Your task to perform on an android device: check storage Image 0: 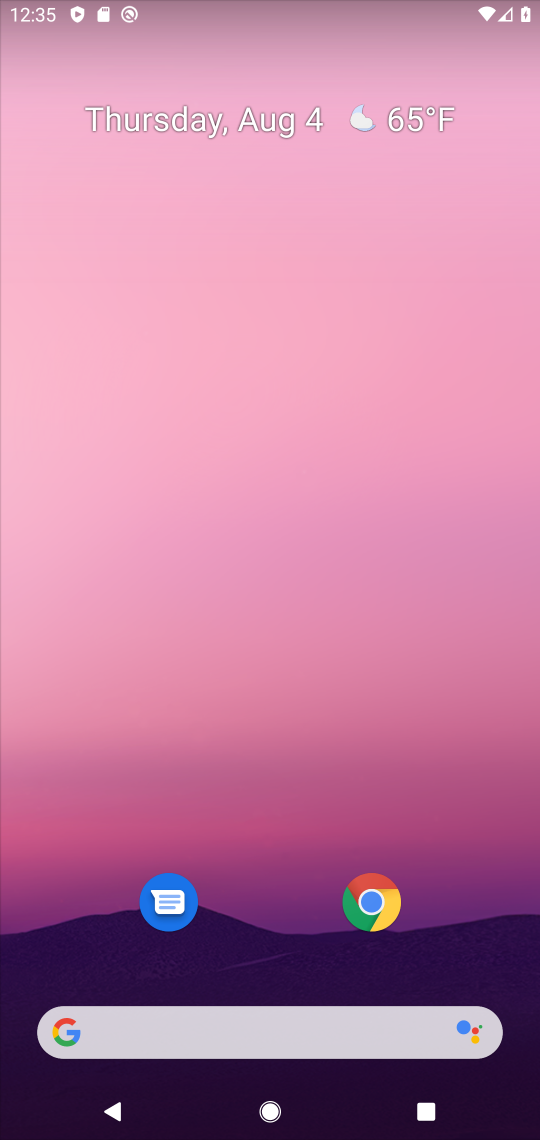
Step 0: drag from (501, 957) to (420, 44)
Your task to perform on an android device: check storage Image 1: 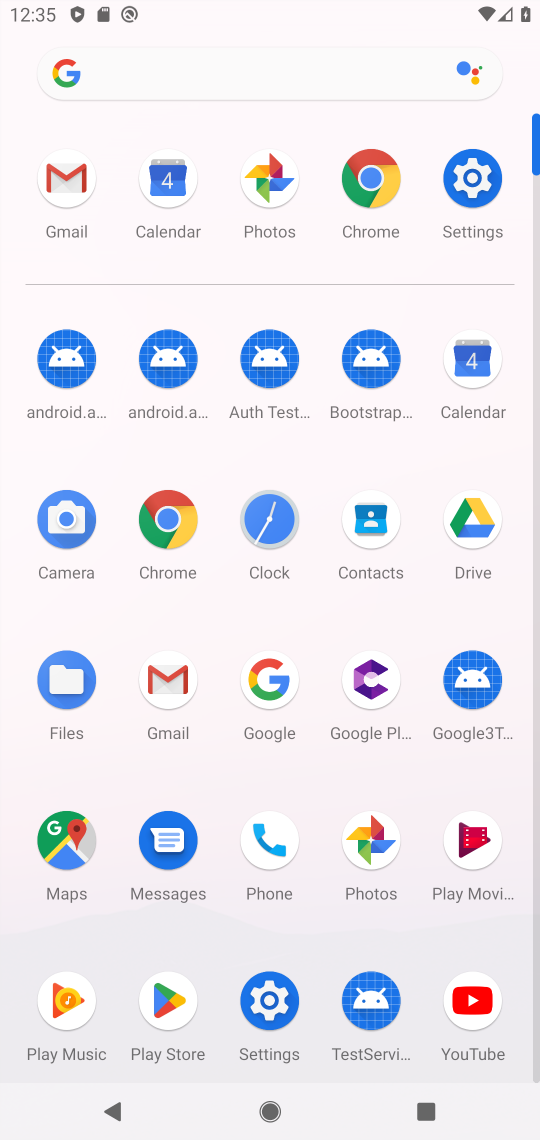
Step 1: click (269, 1000)
Your task to perform on an android device: check storage Image 2: 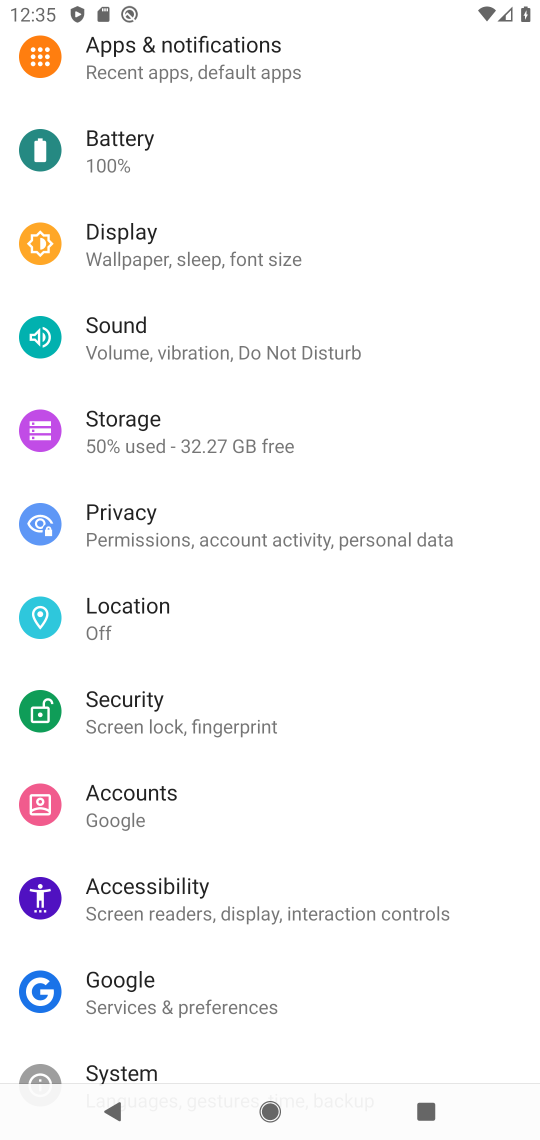
Step 2: click (109, 431)
Your task to perform on an android device: check storage Image 3: 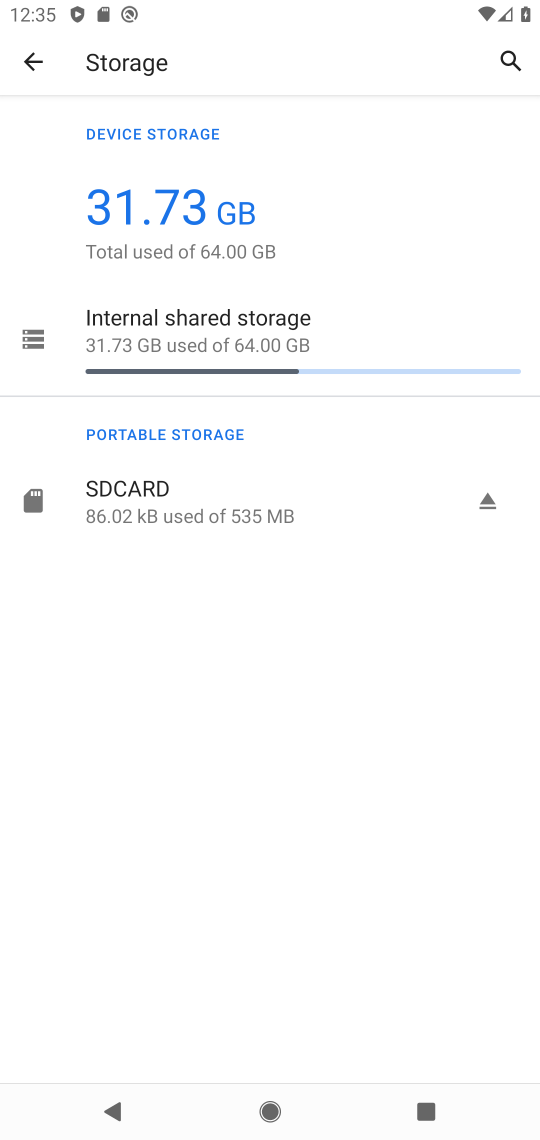
Step 3: task complete